Your task to perform on an android device: Is it going to rain this weekend? Image 0: 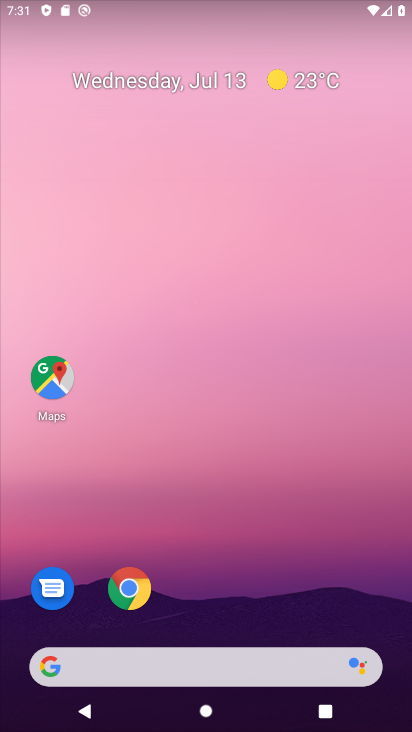
Step 0: drag from (4, 713) to (3, 676)
Your task to perform on an android device: Is it going to rain this weekend? Image 1: 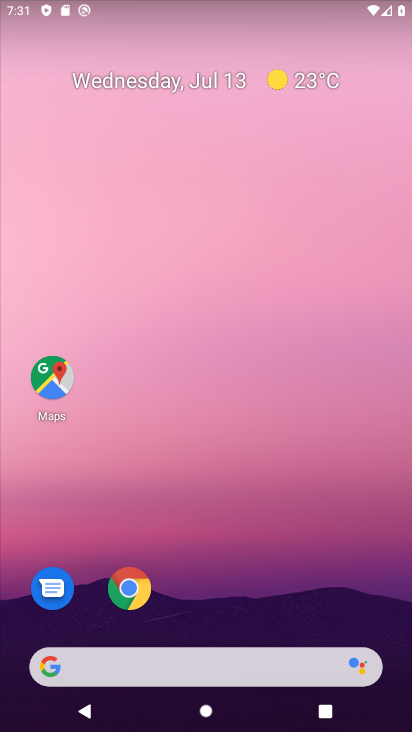
Step 1: click (114, 662)
Your task to perform on an android device: Is it going to rain this weekend? Image 2: 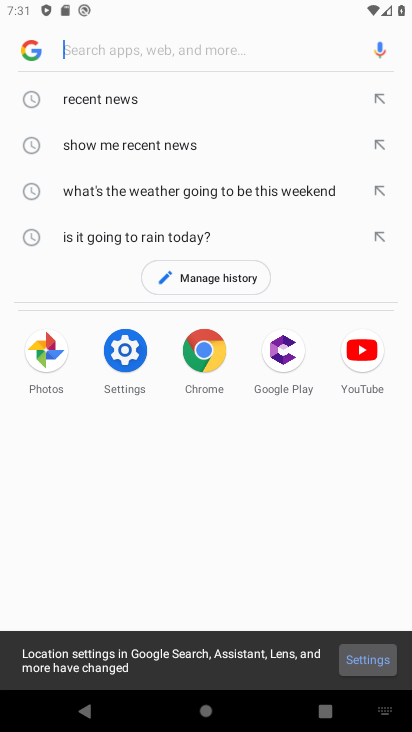
Step 2: type " Is it going to rain this weekend?"
Your task to perform on an android device: Is it going to rain this weekend? Image 3: 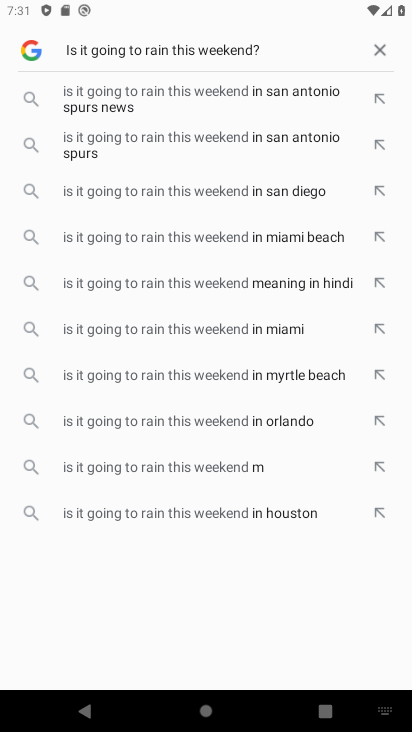
Step 3: press enter
Your task to perform on an android device: Is it going to rain this weekend? Image 4: 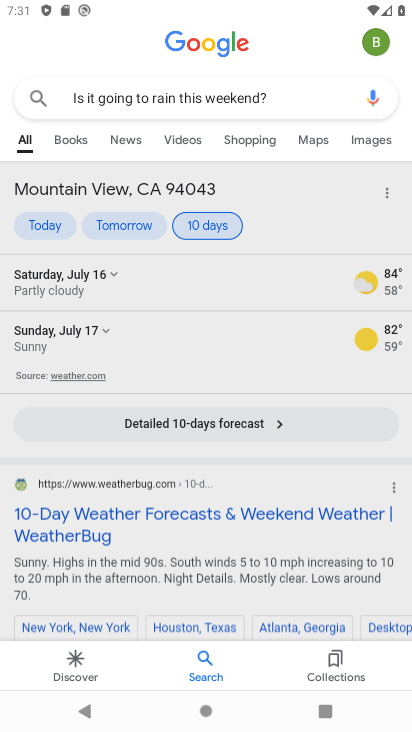
Step 4: task complete